Your task to perform on an android device: change the clock display to analog Image 0: 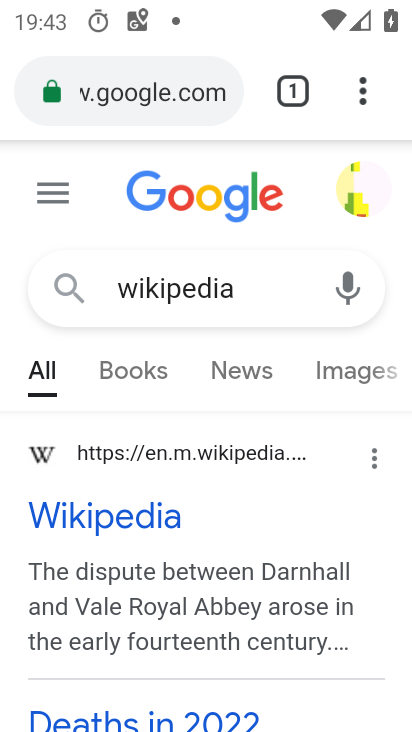
Step 0: press home button
Your task to perform on an android device: change the clock display to analog Image 1: 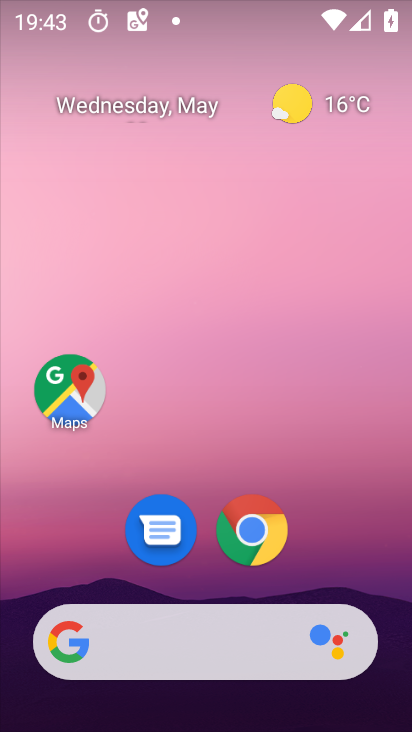
Step 1: drag from (196, 531) to (223, 270)
Your task to perform on an android device: change the clock display to analog Image 2: 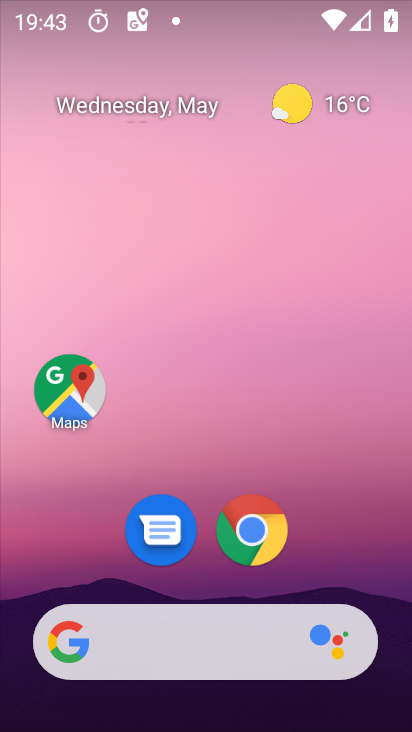
Step 2: drag from (91, 563) to (163, 142)
Your task to perform on an android device: change the clock display to analog Image 3: 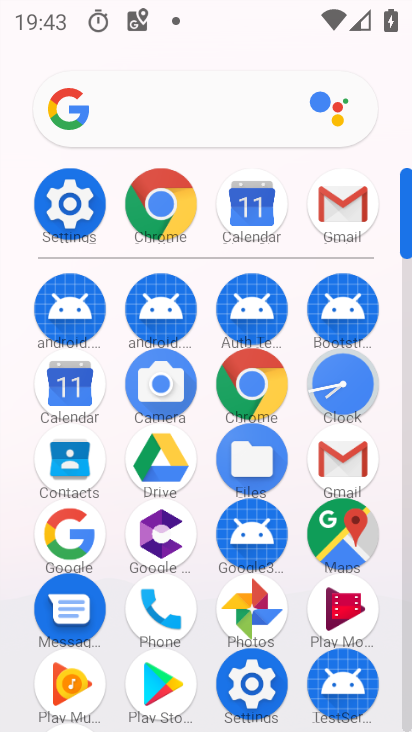
Step 3: click (335, 398)
Your task to perform on an android device: change the clock display to analog Image 4: 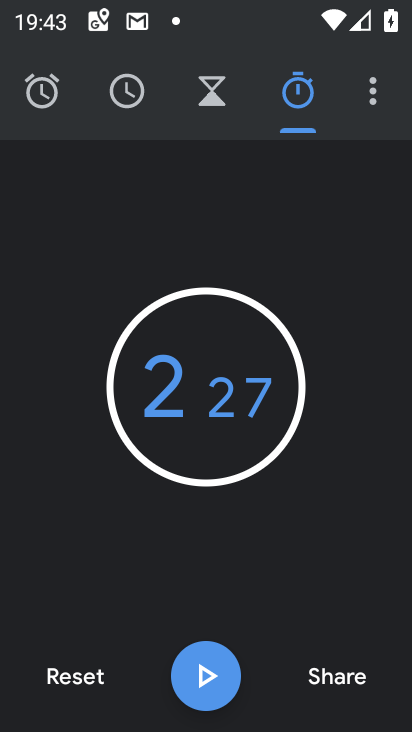
Step 4: click (373, 95)
Your task to perform on an android device: change the clock display to analog Image 5: 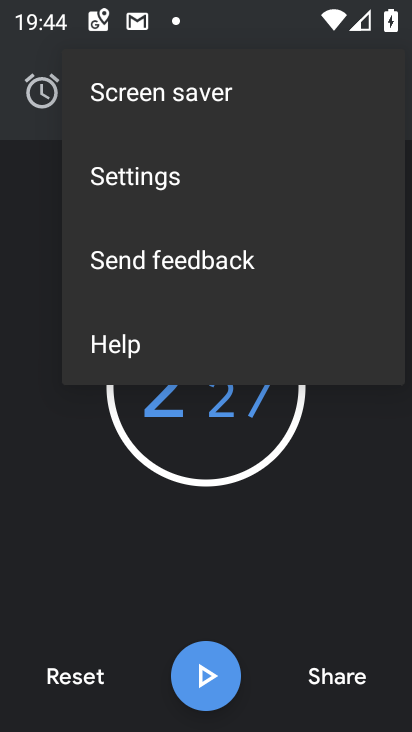
Step 5: click (171, 188)
Your task to perform on an android device: change the clock display to analog Image 6: 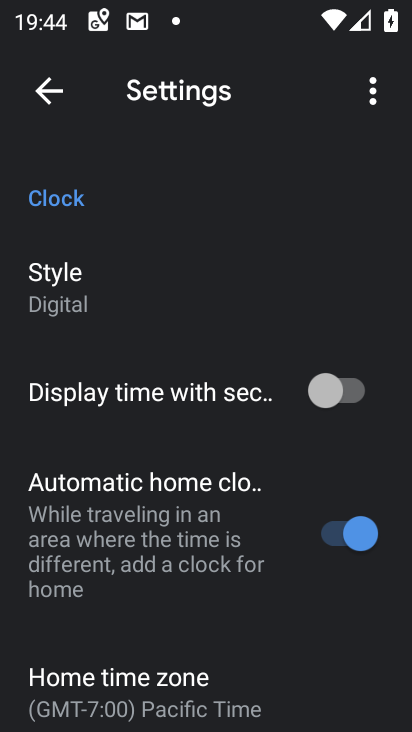
Step 6: drag from (172, 601) to (223, 358)
Your task to perform on an android device: change the clock display to analog Image 7: 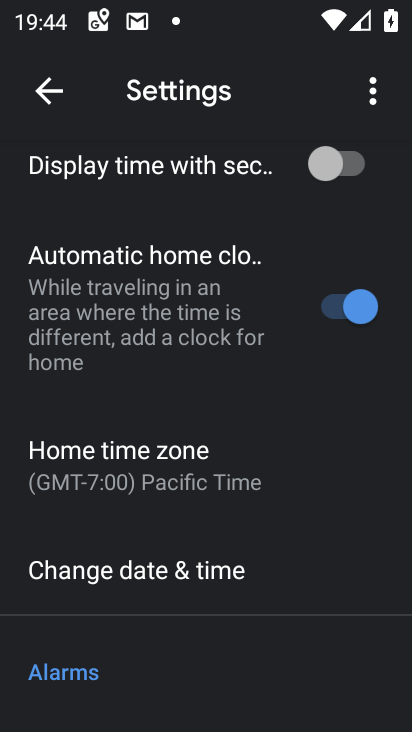
Step 7: drag from (169, 508) to (269, 260)
Your task to perform on an android device: change the clock display to analog Image 8: 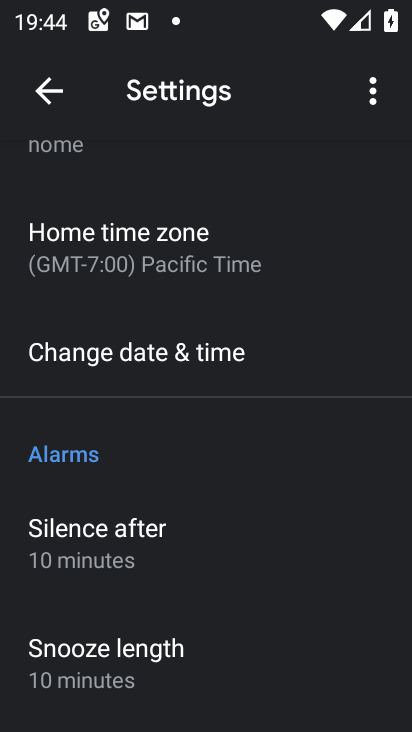
Step 8: drag from (234, 308) to (259, 636)
Your task to perform on an android device: change the clock display to analog Image 9: 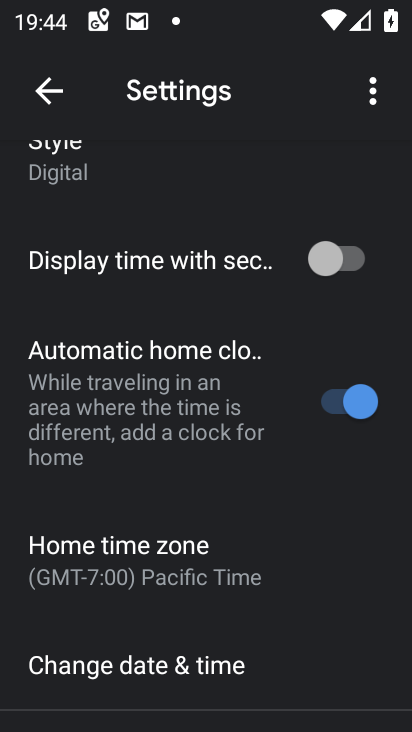
Step 9: drag from (178, 217) to (216, 478)
Your task to perform on an android device: change the clock display to analog Image 10: 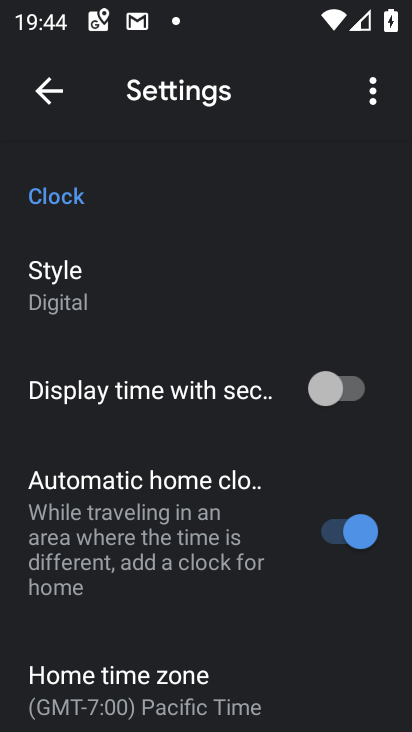
Step 10: click (65, 269)
Your task to perform on an android device: change the clock display to analog Image 11: 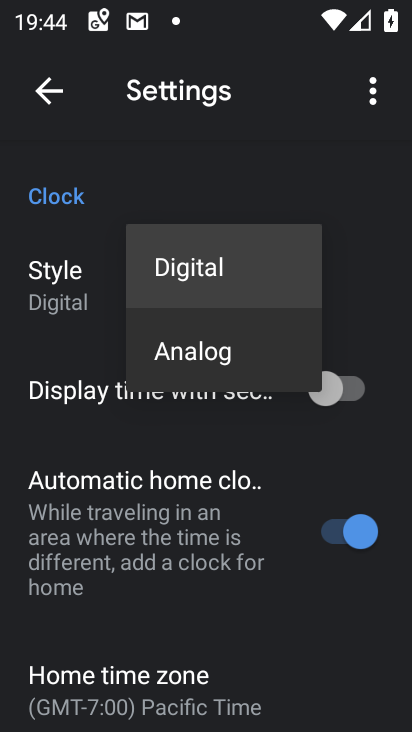
Step 11: click (209, 351)
Your task to perform on an android device: change the clock display to analog Image 12: 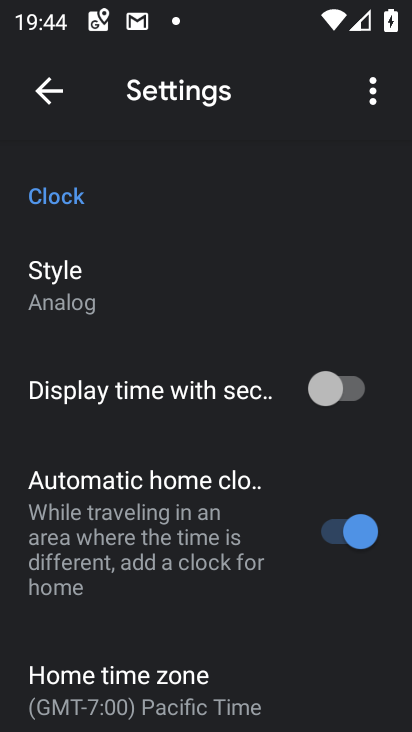
Step 12: task complete